Your task to perform on an android device: open a bookmark in the chrome app Image 0: 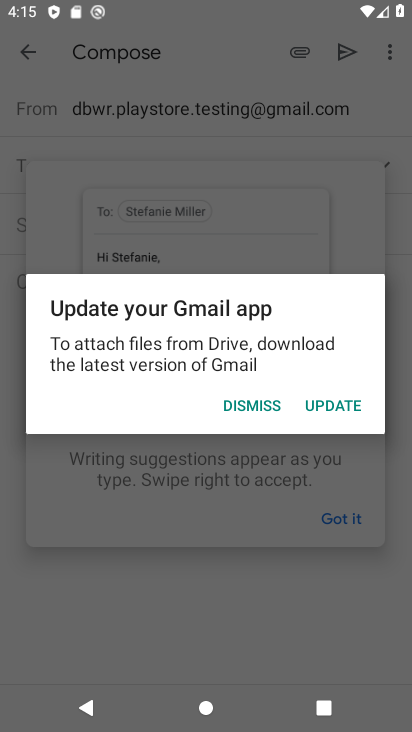
Step 0: press home button
Your task to perform on an android device: open a bookmark in the chrome app Image 1: 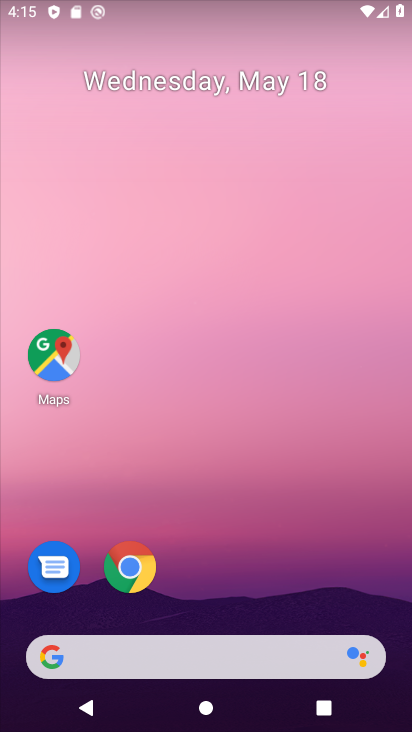
Step 1: click (133, 577)
Your task to perform on an android device: open a bookmark in the chrome app Image 2: 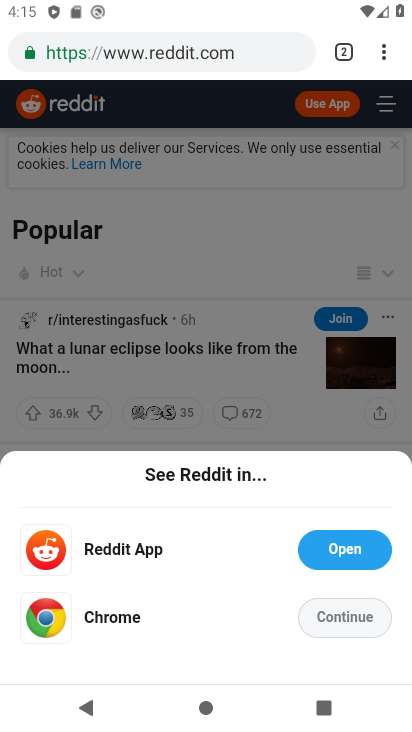
Step 2: click (386, 46)
Your task to perform on an android device: open a bookmark in the chrome app Image 3: 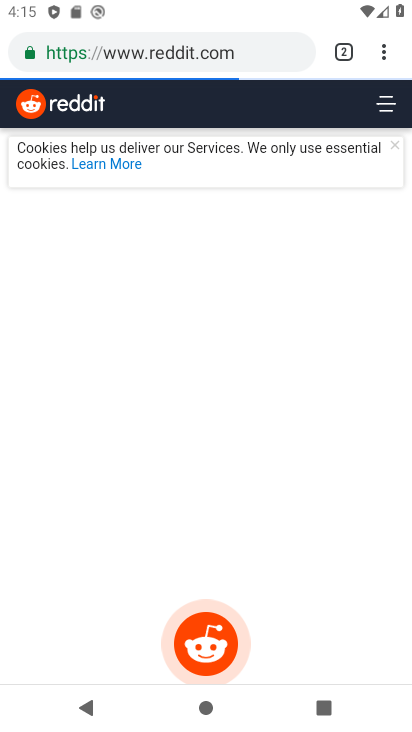
Step 3: click (384, 50)
Your task to perform on an android device: open a bookmark in the chrome app Image 4: 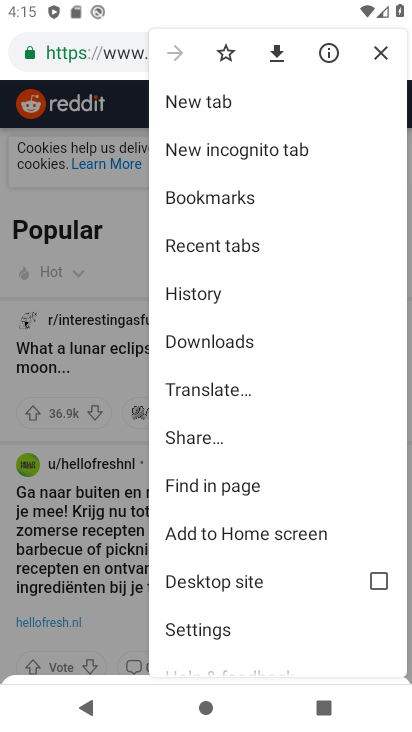
Step 4: click (204, 201)
Your task to perform on an android device: open a bookmark in the chrome app Image 5: 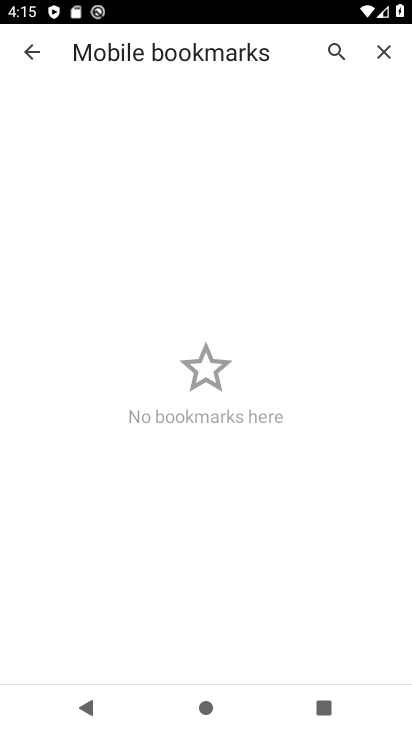
Step 5: task complete